Your task to perform on an android device: read, delete, or share a saved page in the chrome app Image 0: 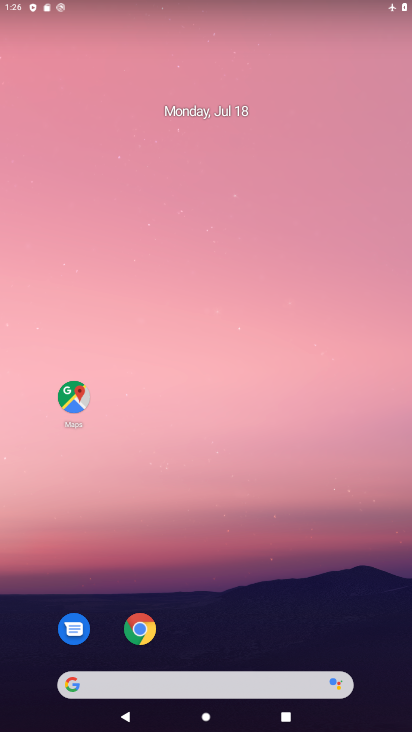
Step 0: drag from (210, 569) to (181, 190)
Your task to perform on an android device: read, delete, or share a saved page in the chrome app Image 1: 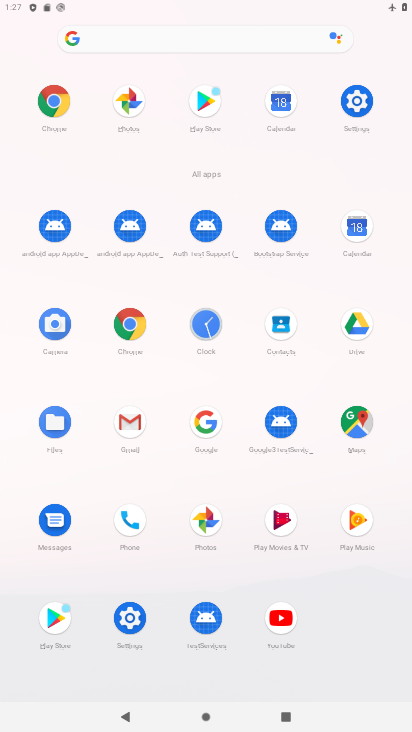
Step 1: click (132, 323)
Your task to perform on an android device: read, delete, or share a saved page in the chrome app Image 2: 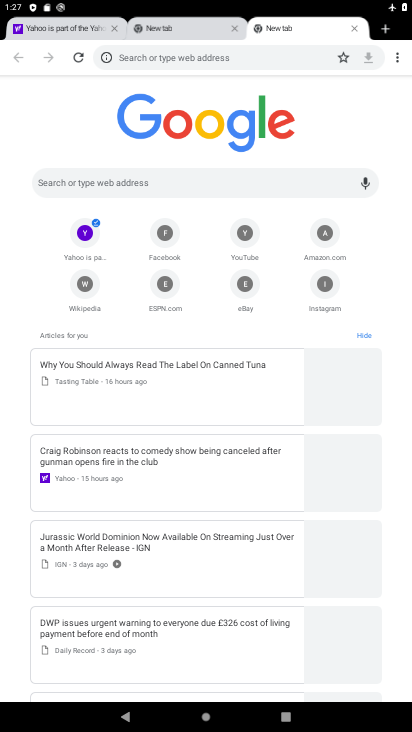
Step 2: click (396, 55)
Your task to perform on an android device: read, delete, or share a saved page in the chrome app Image 3: 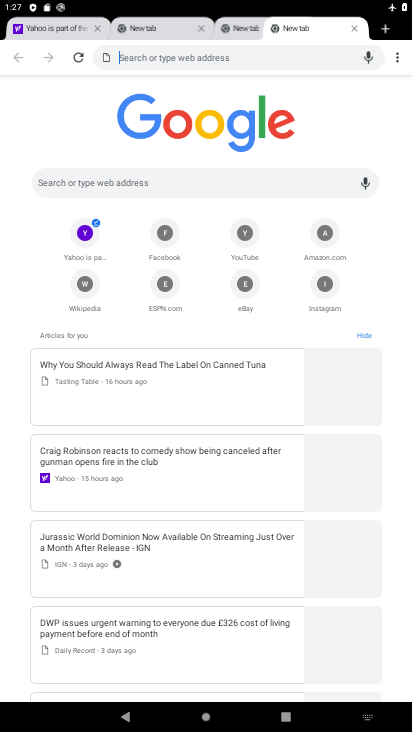
Step 3: click (397, 55)
Your task to perform on an android device: read, delete, or share a saved page in the chrome app Image 4: 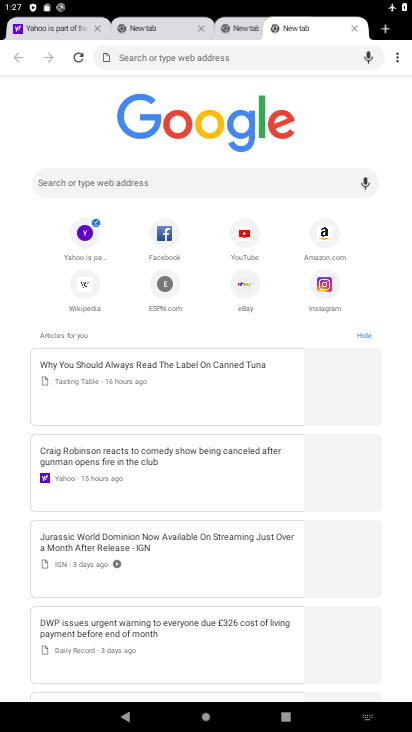
Step 4: click (397, 55)
Your task to perform on an android device: read, delete, or share a saved page in the chrome app Image 5: 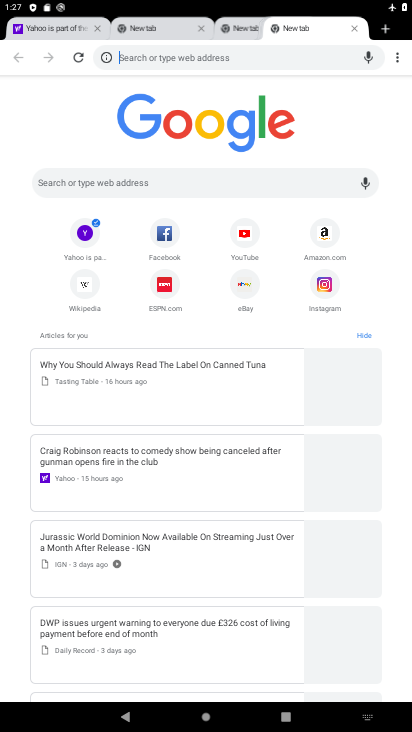
Step 5: click (97, 30)
Your task to perform on an android device: read, delete, or share a saved page in the chrome app Image 6: 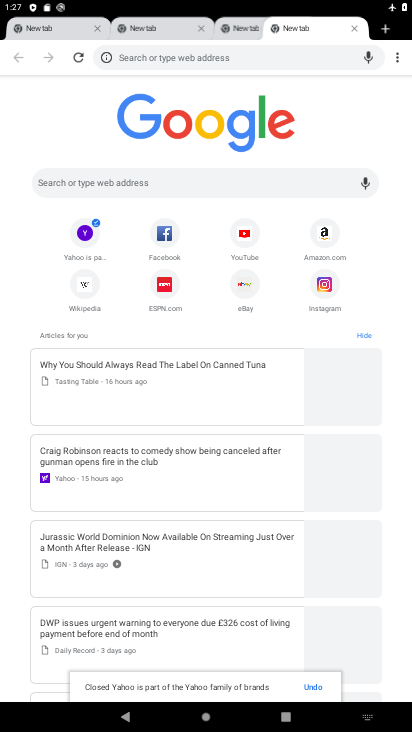
Step 6: click (97, 30)
Your task to perform on an android device: read, delete, or share a saved page in the chrome app Image 7: 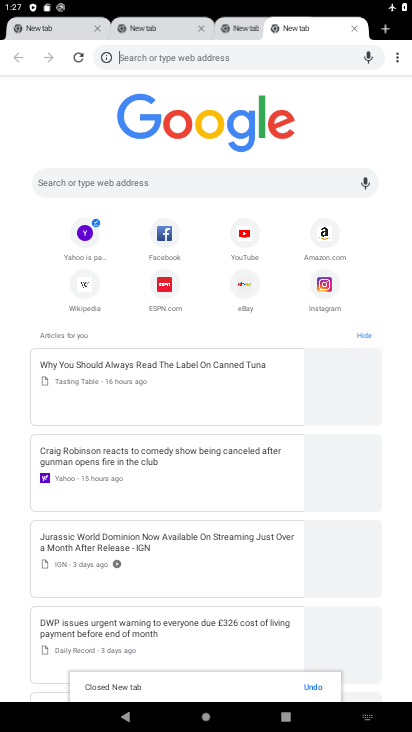
Step 7: click (97, 30)
Your task to perform on an android device: read, delete, or share a saved page in the chrome app Image 8: 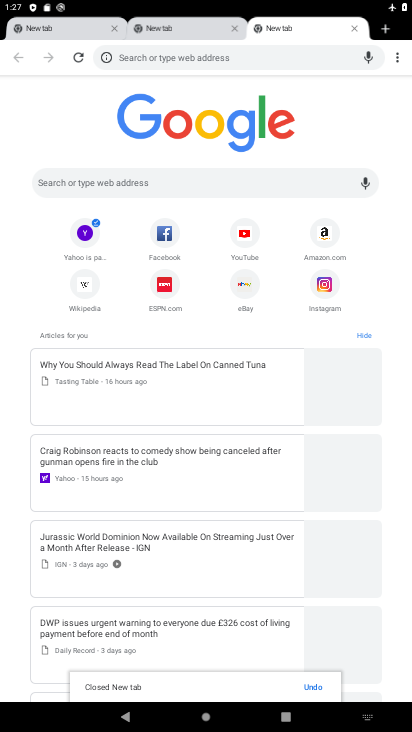
Step 8: click (96, 30)
Your task to perform on an android device: read, delete, or share a saved page in the chrome app Image 9: 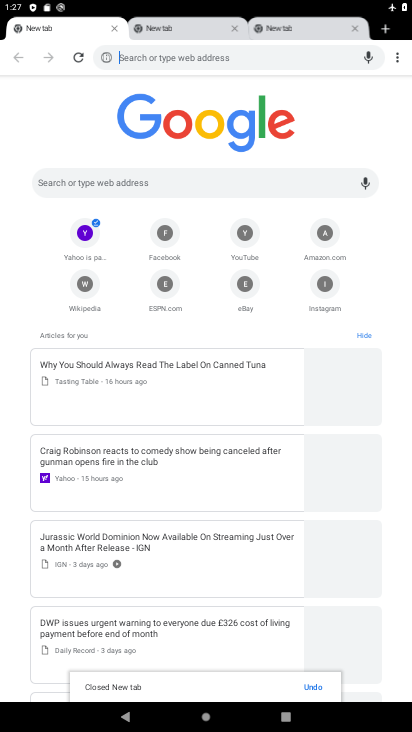
Step 9: click (113, 26)
Your task to perform on an android device: read, delete, or share a saved page in the chrome app Image 10: 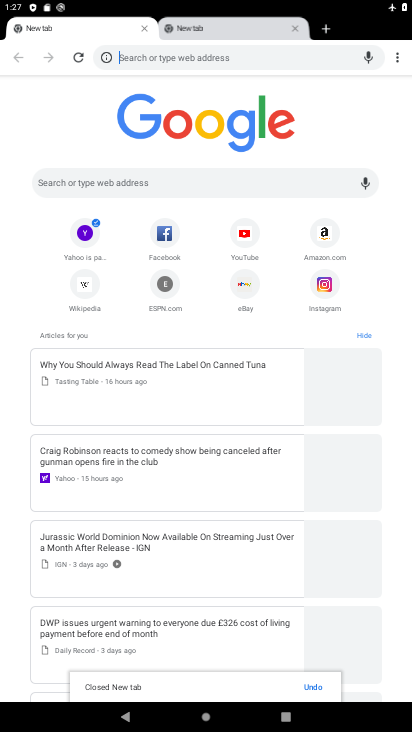
Step 10: click (144, 23)
Your task to perform on an android device: read, delete, or share a saved page in the chrome app Image 11: 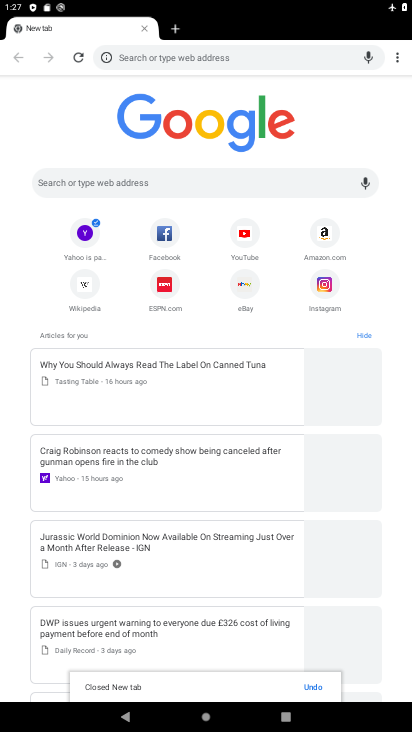
Step 11: click (398, 59)
Your task to perform on an android device: read, delete, or share a saved page in the chrome app Image 12: 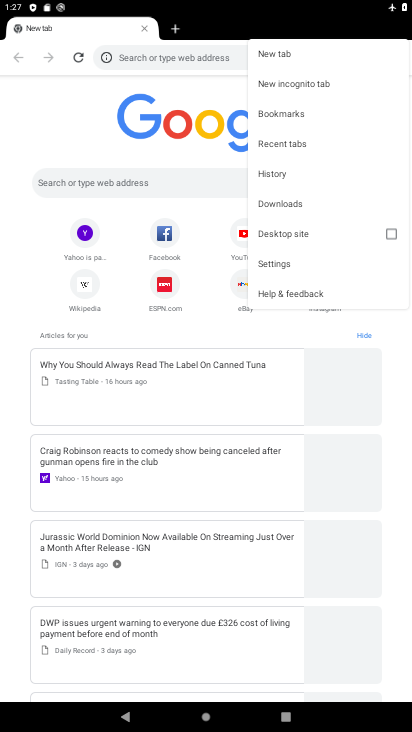
Step 12: click (283, 262)
Your task to perform on an android device: read, delete, or share a saved page in the chrome app Image 13: 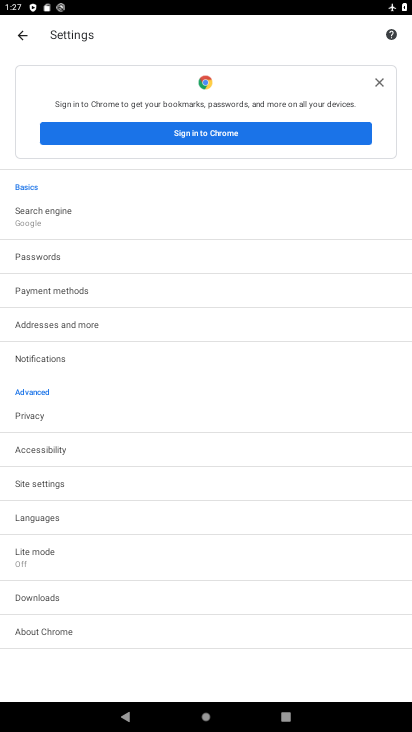
Step 13: click (377, 79)
Your task to perform on an android device: read, delete, or share a saved page in the chrome app Image 14: 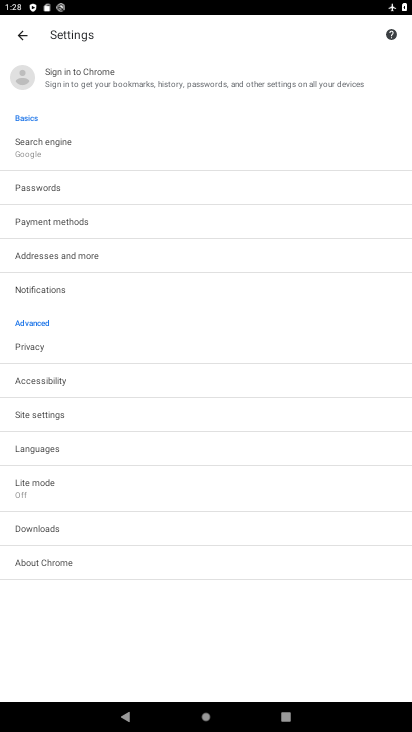
Step 14: task complete